Your task to perform on an android device: set an alarm Image 0: 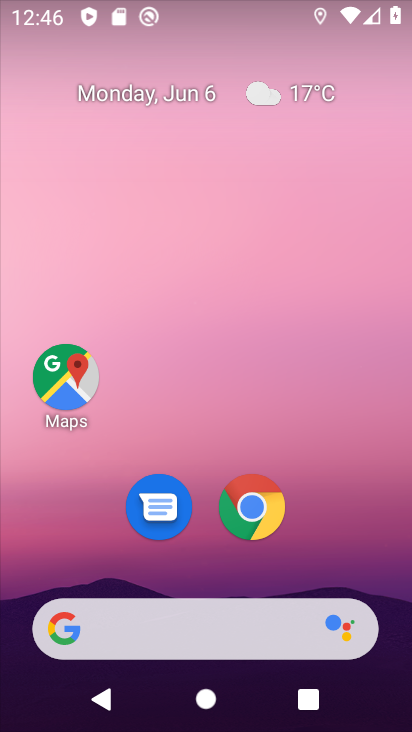
Step 0: drag from (162, 372) to (184, 0)
Your task to perform on an android device: set an alarm Image 1: 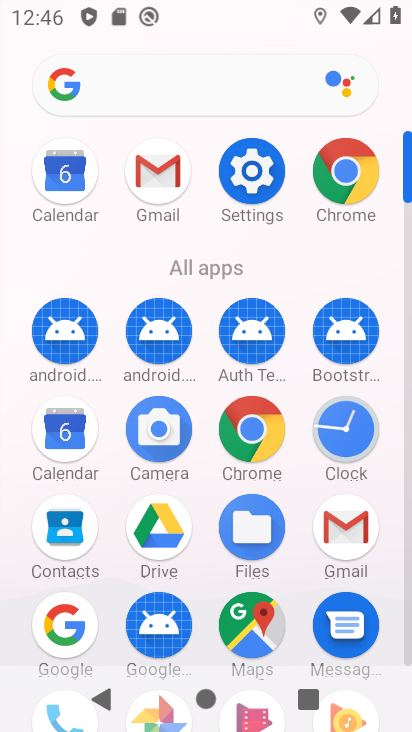
Step 1: click (349, 421)
Your task to perform on an android device: set an alarm Image 2: 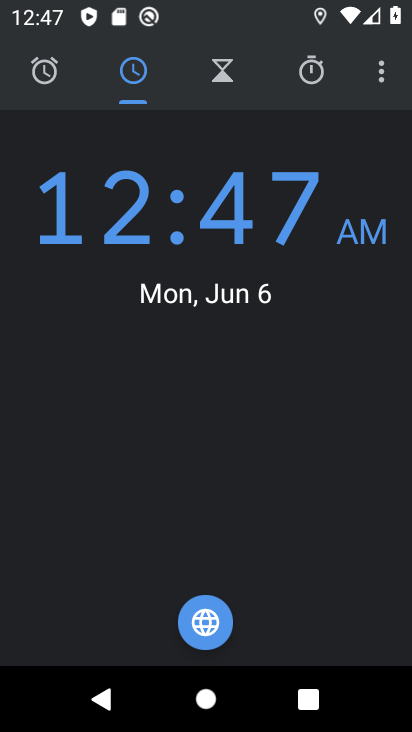
Step 2: click (49, 76)
Your task to perform on an android device: set an alarm Image 3: 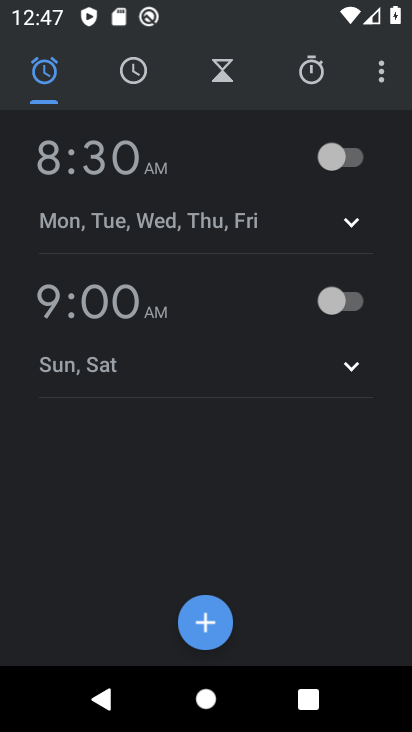
Step 3: click (202, 620)
Your task to perform on an android device: set an alarm Image 4: 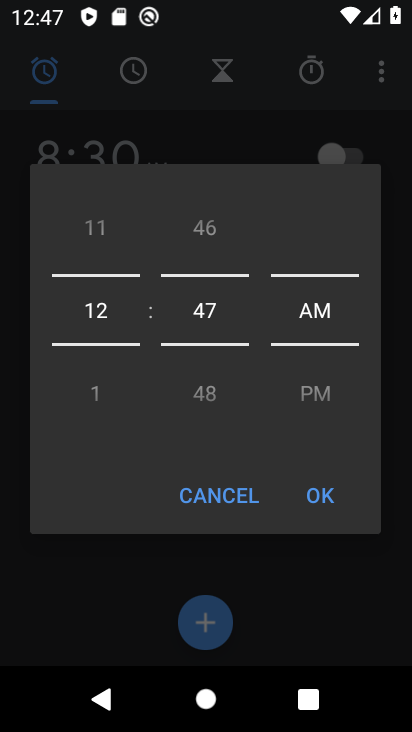
Step 4: drag from (216, 236) to (213, 398)
Your task to perform on an android device: set an alarm Image 5: 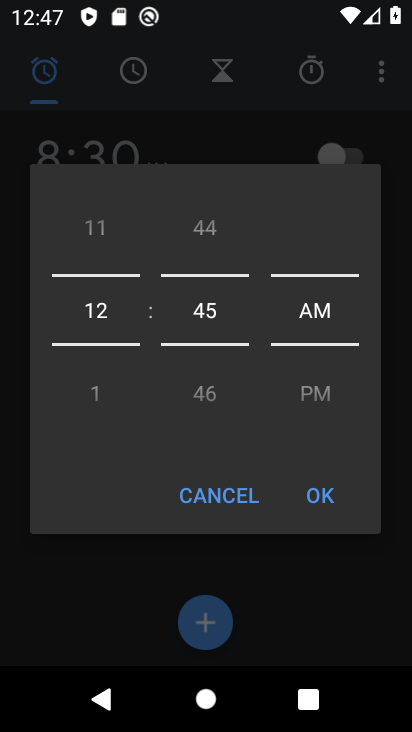
Step 5: drag from (321, 312) to (336, 200)
Your task to perform on an android device: set an alarm Image 6: 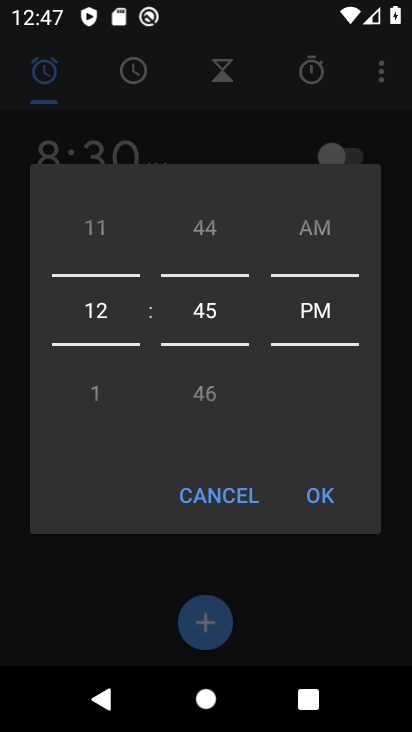
Step 6: click (312, 487)
Your task to perform on an android device: set an alarm Image 7: 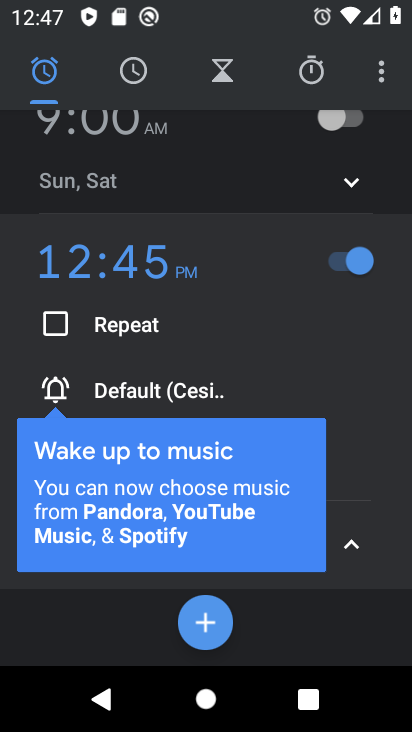
Step 7: task complete